Your task to perform on an android device: toggle wifi Image 0: 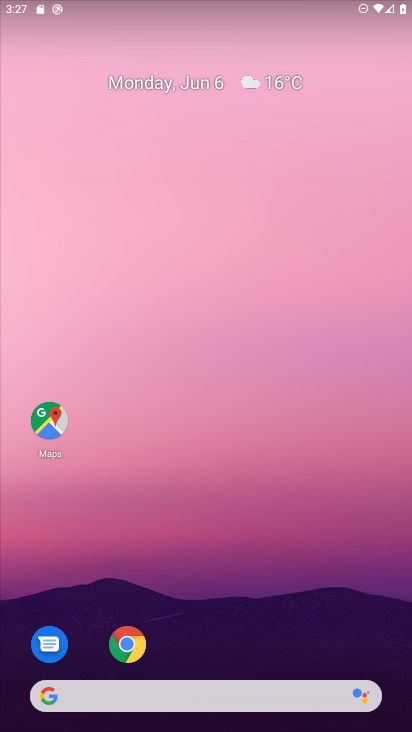
Step 0: drag from (296, 608) to (233, 7)
Your task to perform on an android device: toggle wifi Image 1: 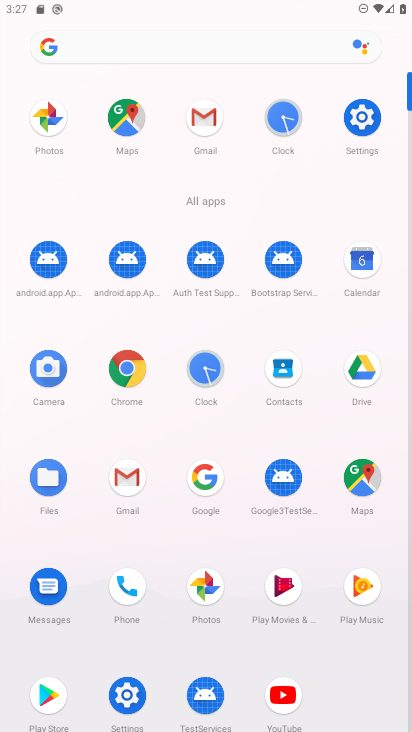
Step 1: click (365, 119)
Your task to perform on an android device: toggle wifi Image 2: 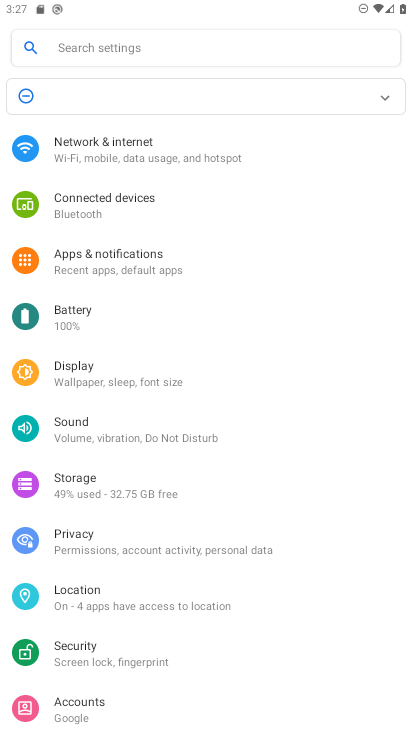
Step 2: click (106, 157)
Your task to perform on an android device: toggle wifi Image 3: 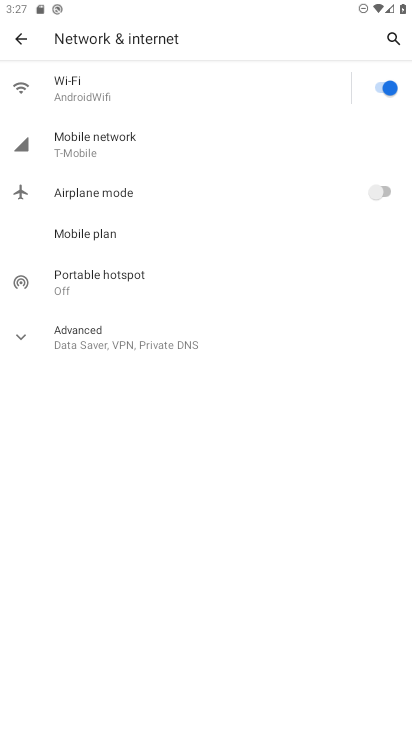
Step 3: click (377, 91)
Your task to perform on an android device: toggle wifi Image 4: 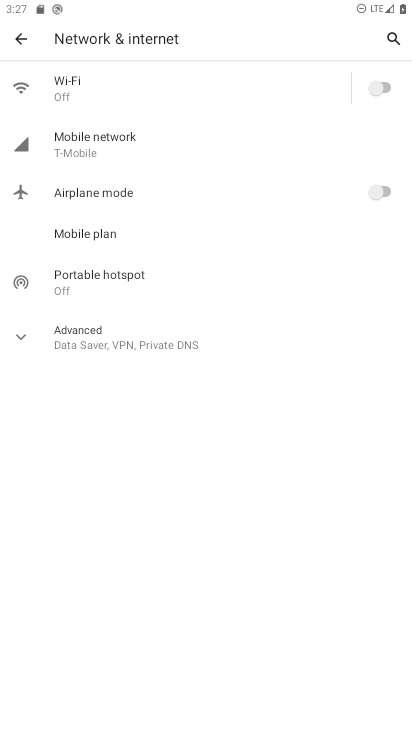
Step 4: task complete